Your task to perform on an android device: Go to sound settings Image 0: 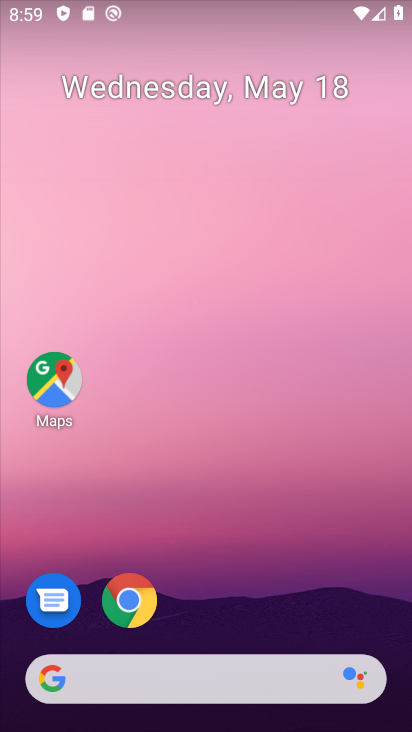
Step 0: drag from (59, 489) to (257, 178)
Your task to perform on an android device: Go to sound settings Image 1: 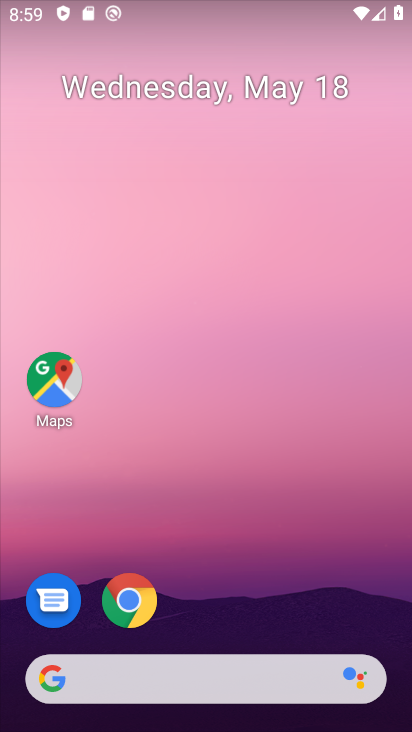
Step 1: drag from (81, 478) to (254, 102)
Your task to perform on an android device: Go to sound settings Image 2: 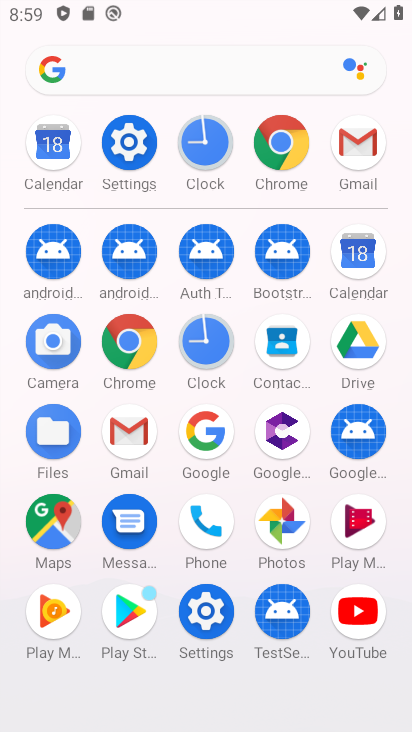
Step 2: click (99, 161)
Your task to perform on an android device: Go to sound settings Image 3: 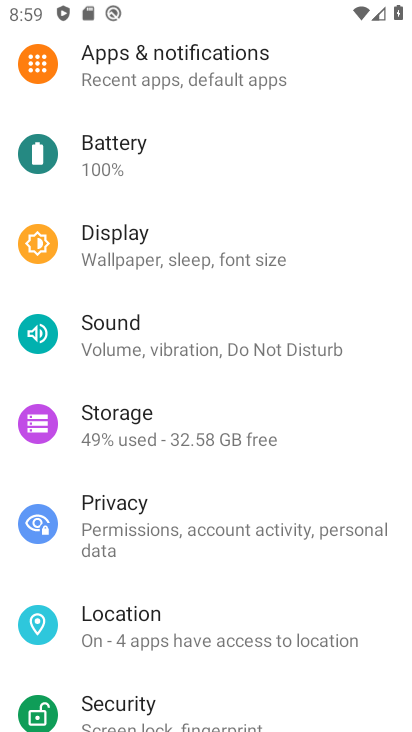
Step 3: drag from (198, 99) to (154, 570)
Your task to perform on an android device: Go to sound settings Image 4: 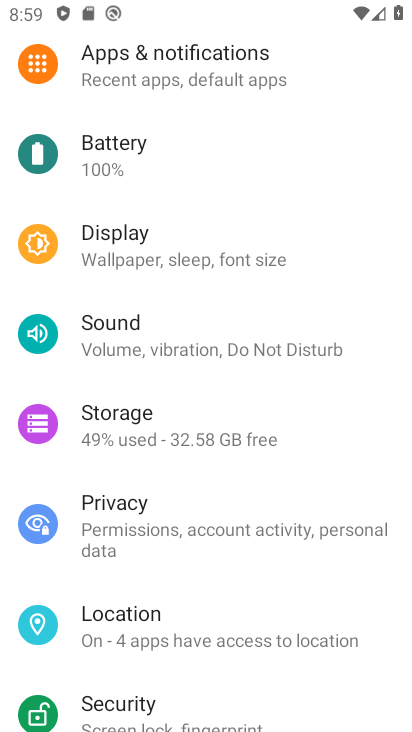
Step 4: drag from (1, 653) to (252, 170)
Your task to perform on an android device: Go to sound settings Image 5: 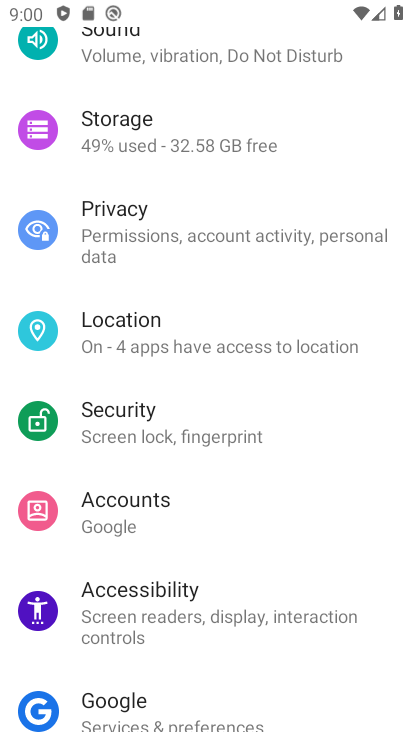
Step 5: drag from (178, 210) to (170, 666)
Your task to perform on an android device: Go to sound settings Image 6: 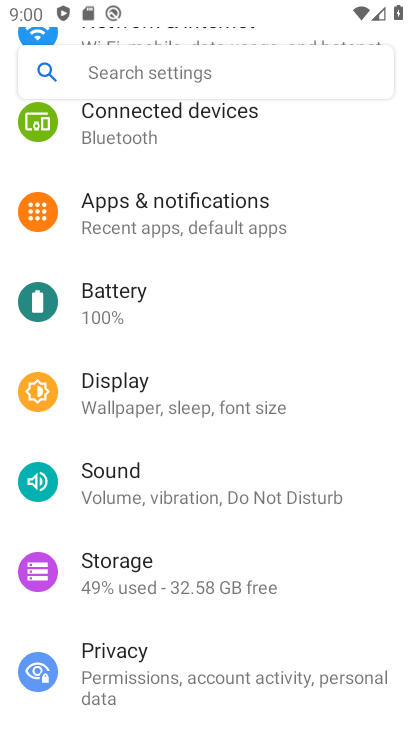
Step 6: click (144, 482)
Your task to perform on an android device: Go to sound settings Image 7: 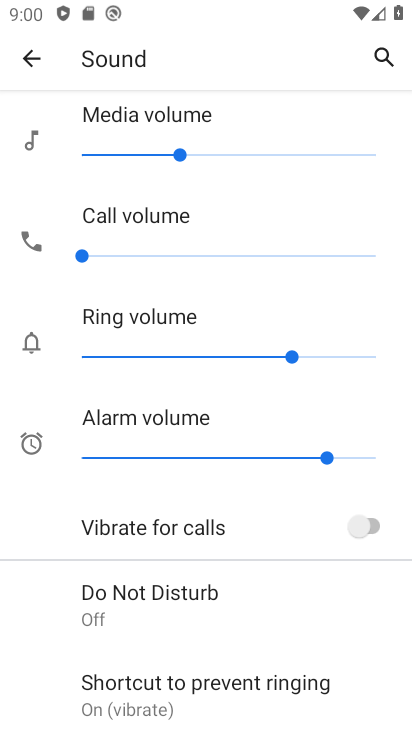
Step 7: task complete